Your task to perform on an android device: install app "Facebook" Image 0: 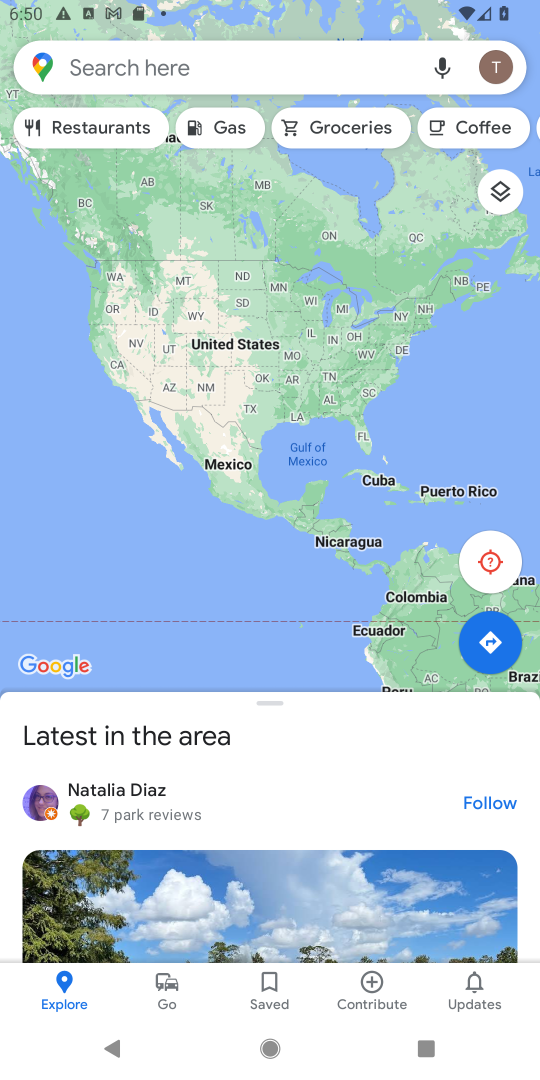
Step 0: press home button
Your task to perform on an android device: install app "Facebook" Image 1: 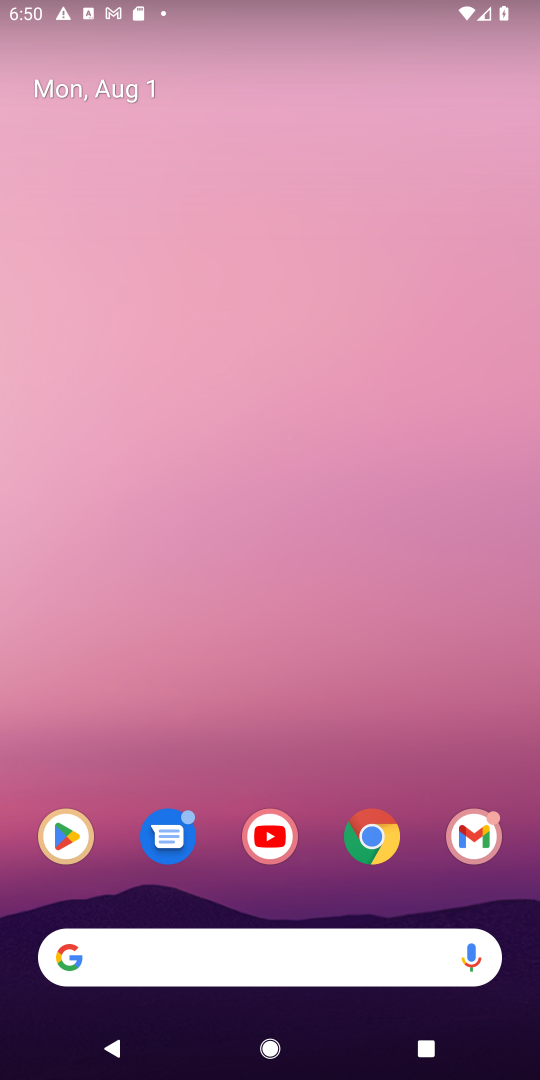
Step 1: click (54, 843)
Your task to perform on an android device: install app "Facebook" Image 2: 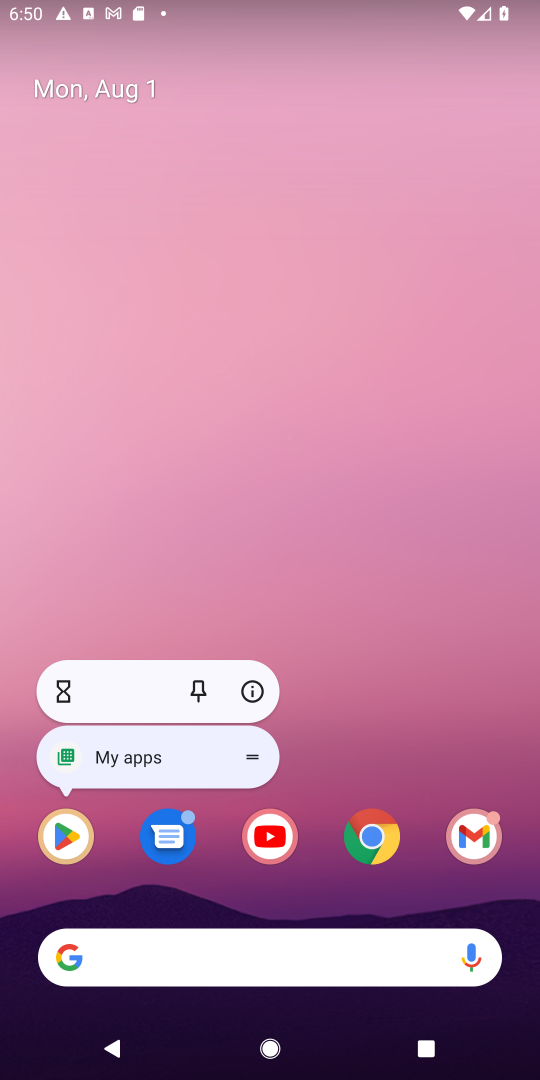
Step 2: click (62, 831)
Your task to perform on an android device: install app "Facebook" Image 3: 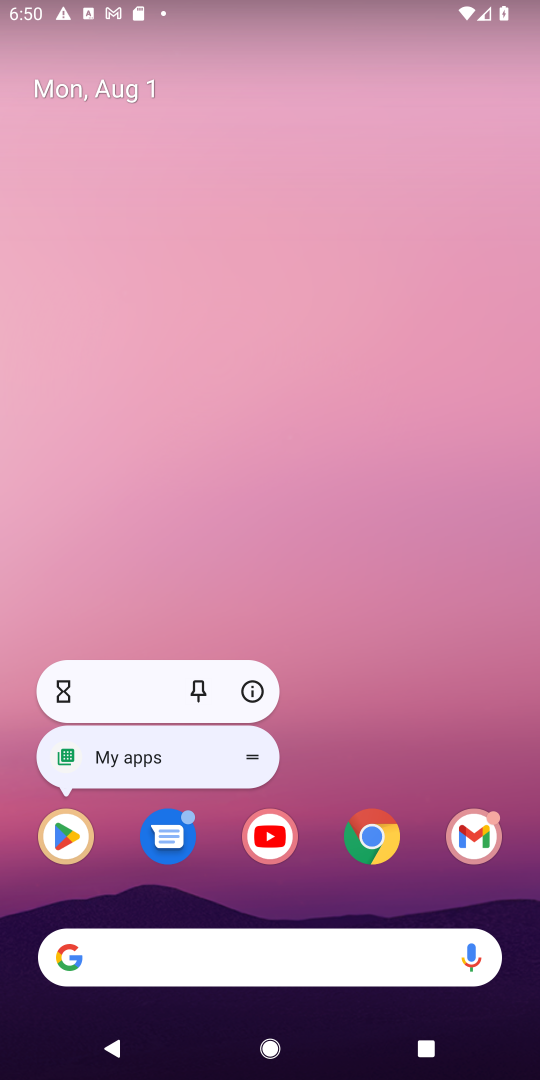
Step 3: click (60, 840)
Your task to perform on an android device: install app "Facebook" Image 4: 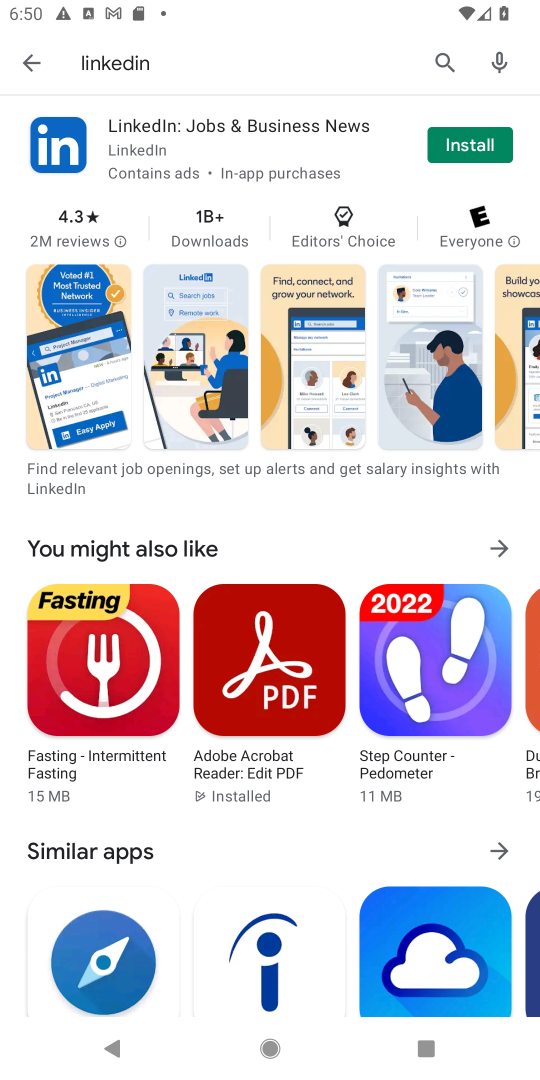
Step 4: click (446, 52)
Your task to perform on an android device: install app "Facebook" Image 5: 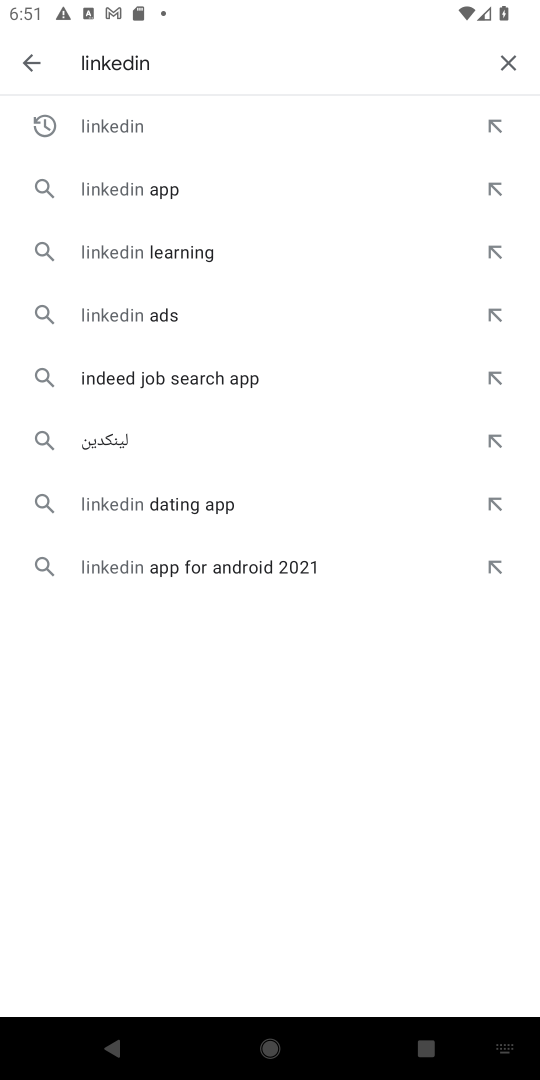
Step 5: click (505, 62)
Your task to perform on an android device: install app "Facebook" Image 6: 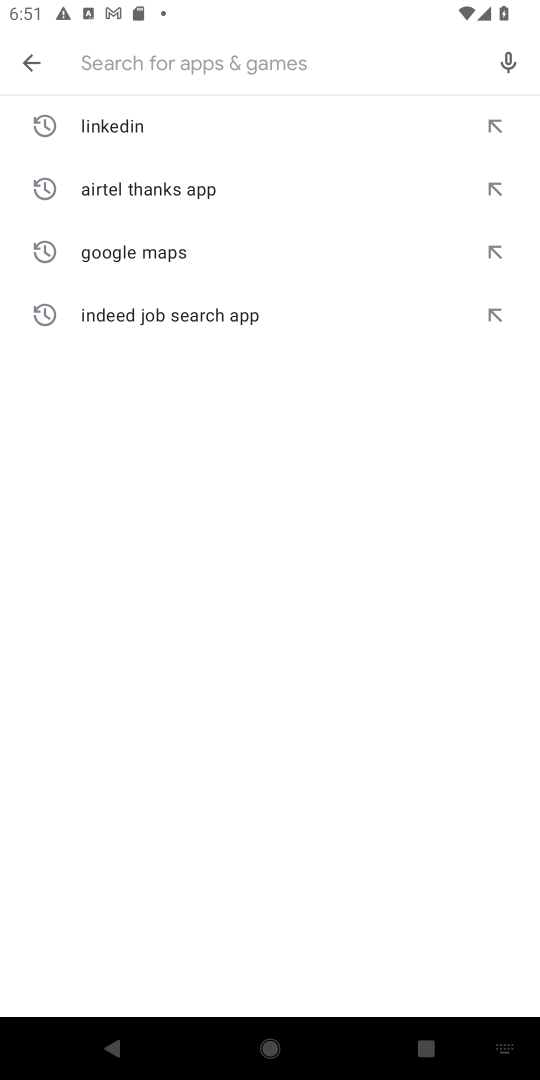
Step 6: type "Facebook"
Your task to perform on an android device: install app "Facebook" Image 7: 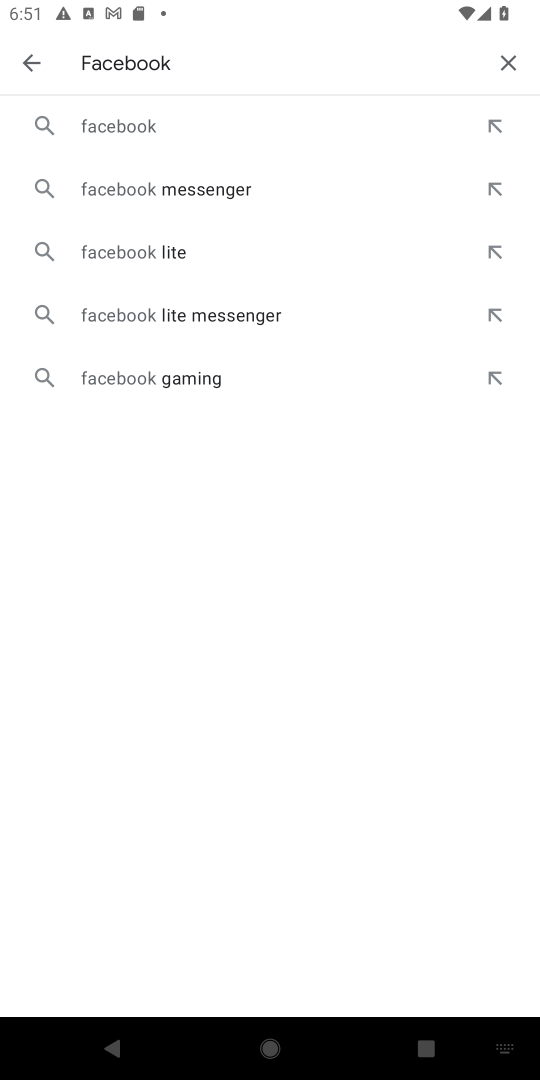
Step 7: click (169, 132)
Your task to perform on an android device: install app "Facebook" Image 8: 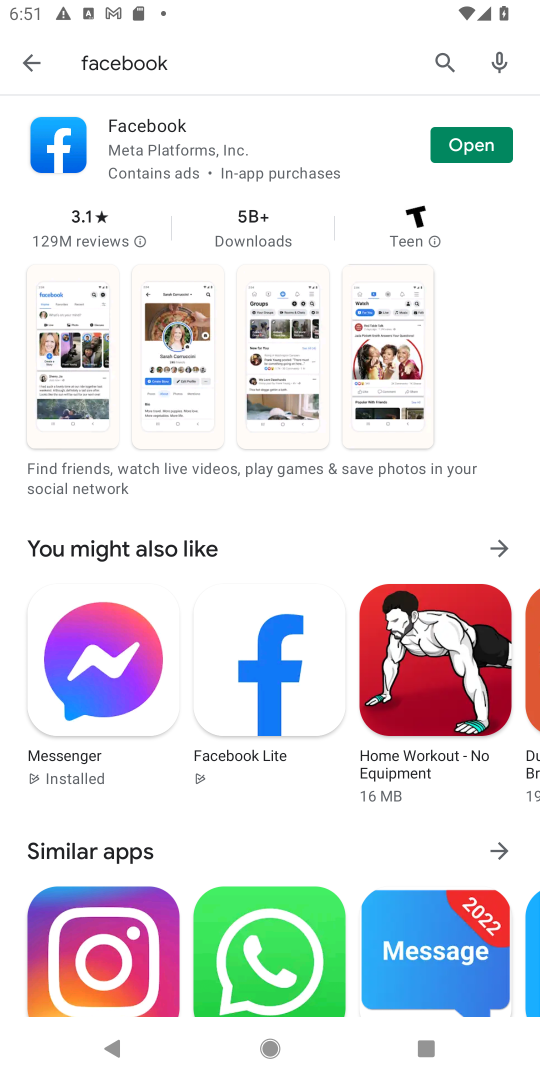
Step 8: task complete